Your task to perform on an android device: check battery use Image 0: 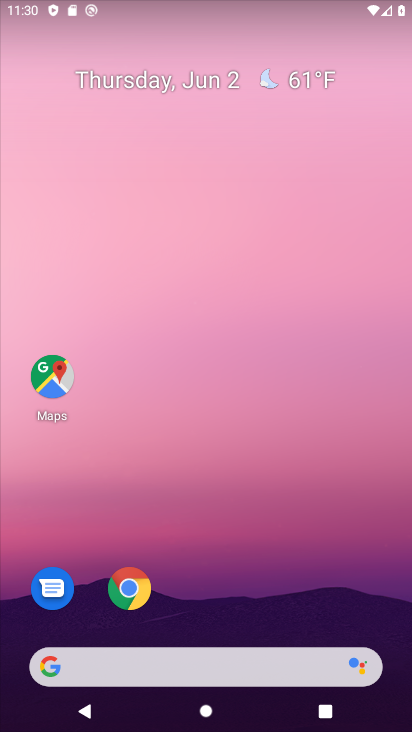
Step 0: drag from (198, 586) to (247, 240)
Your task to perform on an android device: check battery use Image 1: 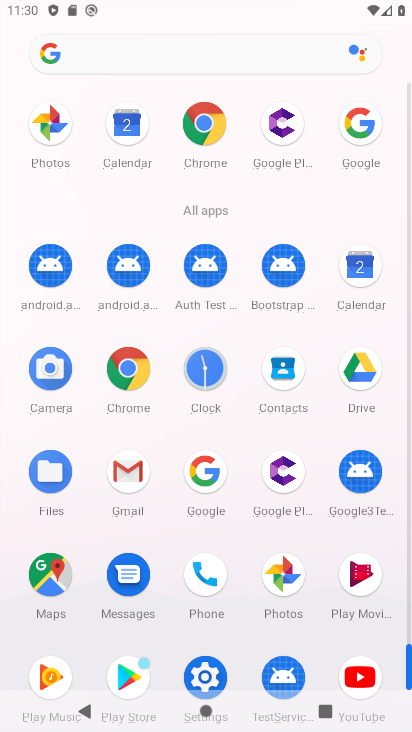
Step 1: drag from (157, 200) to (177, 57)
Your task to perform on an android device: check battery use Image 2: 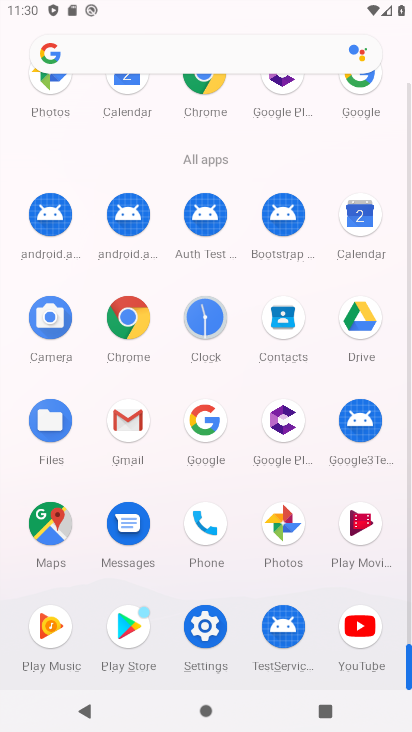
Step 2: click (210, 629)
Your task to perform on an android device: check battery use Image 3: 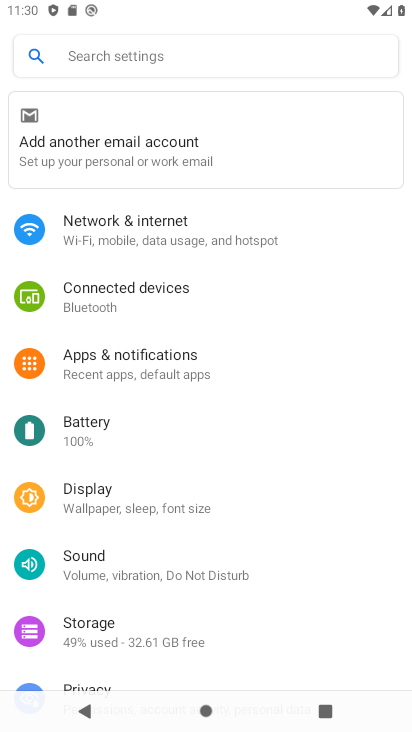
Step 3: drag from (143, 489) to (145, 170)
Your task to perform on an android device: check battery use Image 4: 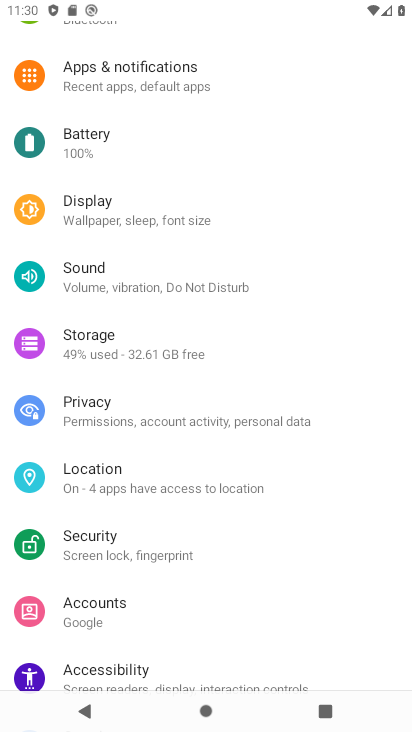
Step 4: drag from (130, 514) to (170, 256)
Your task to perform on an android device: check battery use Image 5: 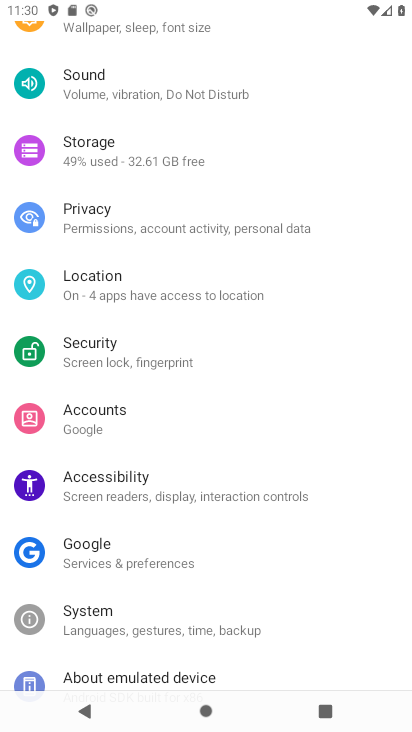
Step 5: drag from (205, 206) to (204, 544)
Your task to perform on an android device: check battery use Image 6: 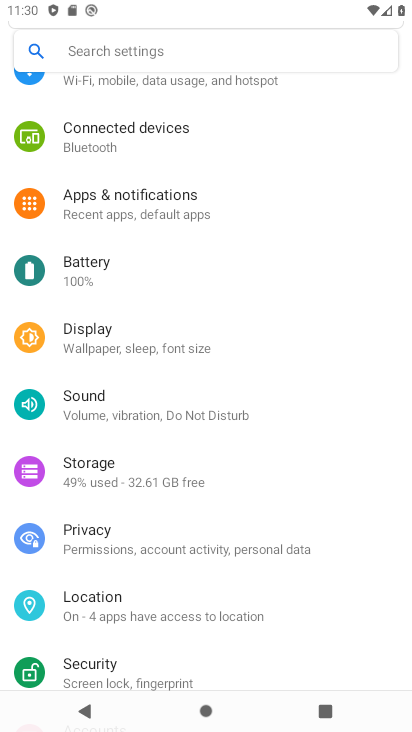
Step 6: click (158, 289)
Your task to perform on an android device: check battery use Image 7: 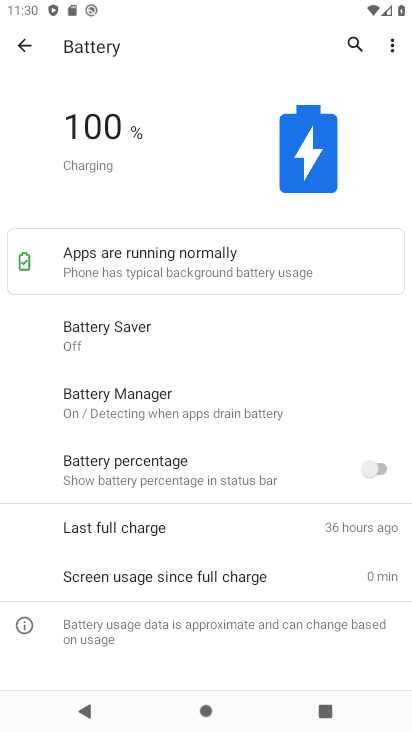
Step 7: click (396, 46)
Your task to perform on an android device: check battery use Image 8: 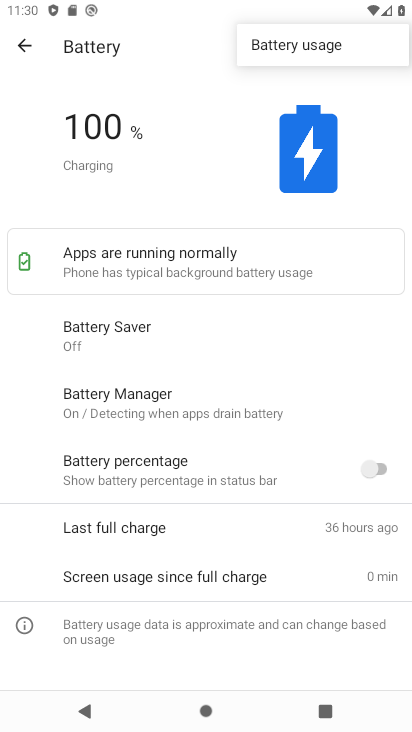
Step 8: click (341, 44)
Your task to perform on an android device: check battery use Image 9: 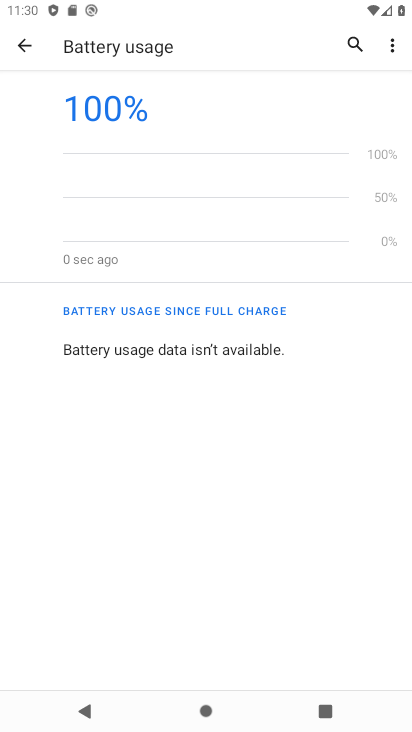
Step 9: task complete